Your task to perform on an android device: Search for "bose soundsport free" on ebay.com, select the first entry, and add it to the cart. Image 0: 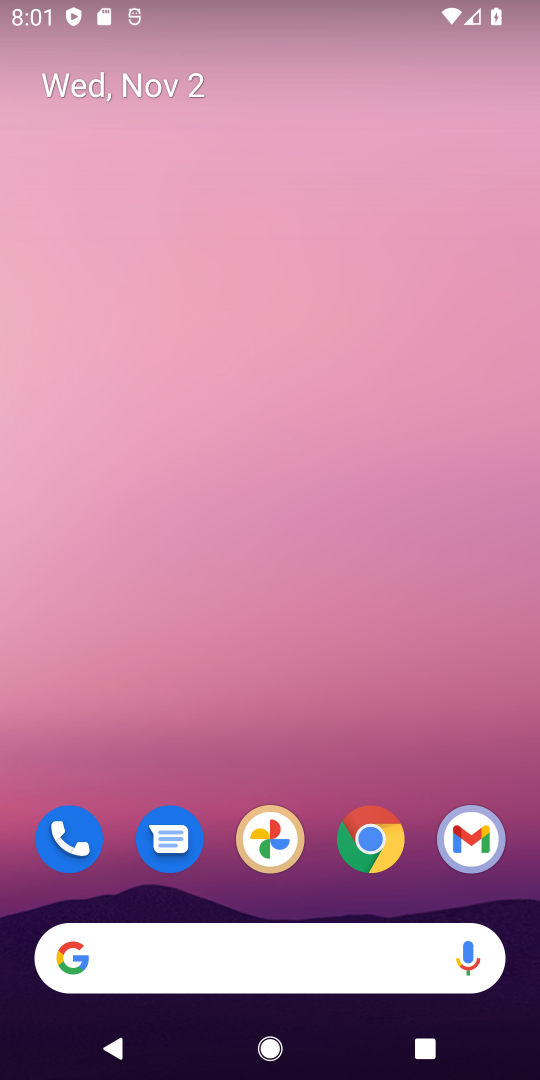
Step 0: click (369, 840)
Your task to perform on an android device: Search for "bose soundsport free" on ebay.com, select the first entry, and add it to the cart. Image 1: 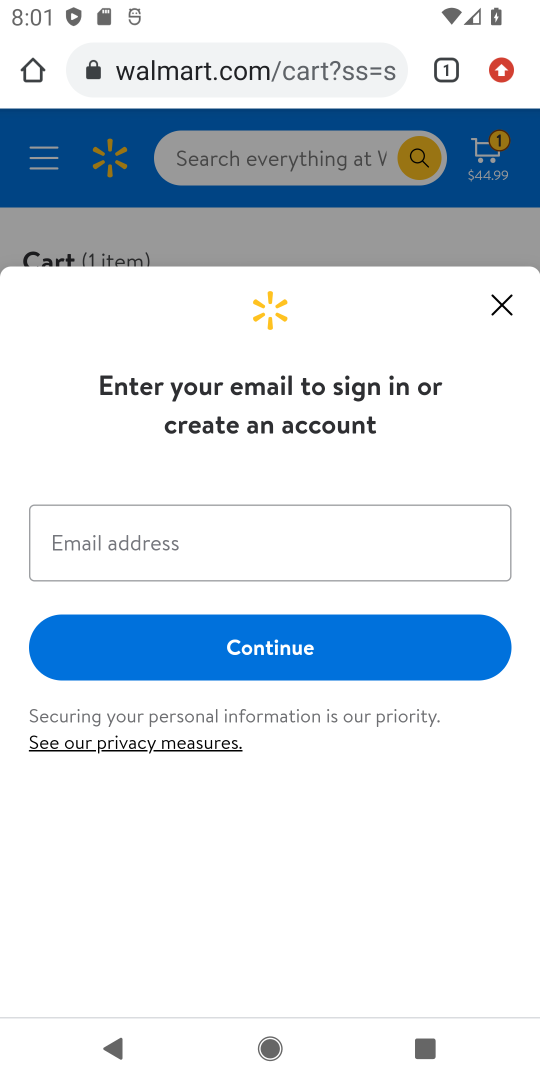
Step 1: click (316, 62)
Your task to perform on an android device: Search for "bose soundsport free" on ebay.com, select the first entry, and add it to the cart. Image 2: 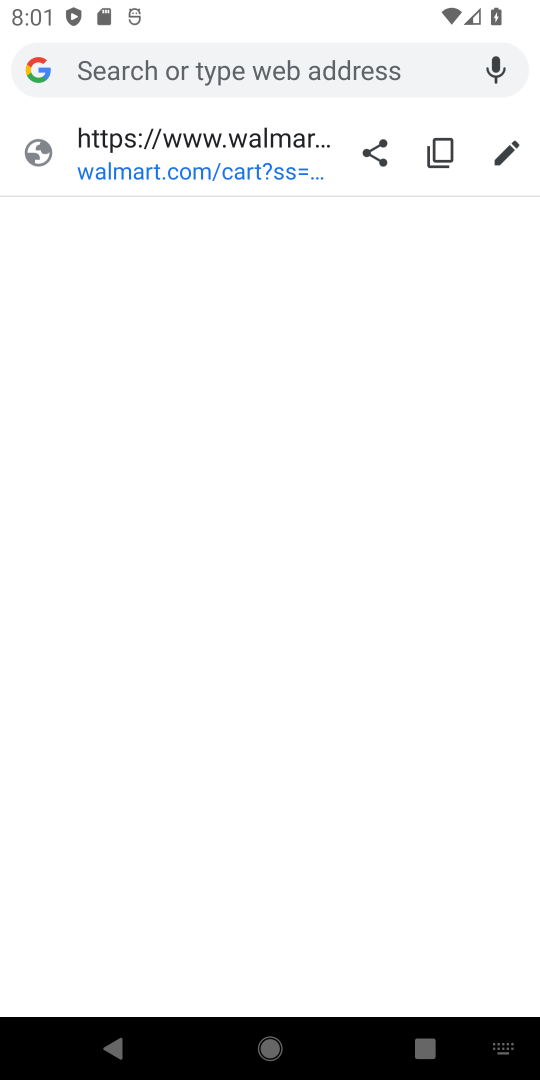
Step 2: type "ebay.com"
Your task to perform on an android device: Search for "bose soundsport free" on ebay.com, select the first entry, and add it to the cart. Image 3: 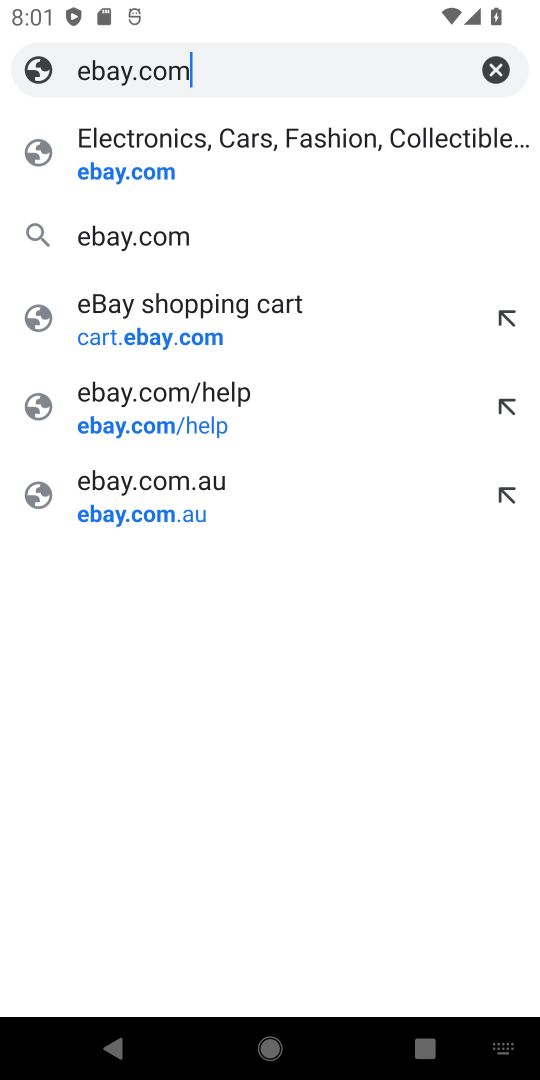
Step 3: click (182, 235)
Your task to perform on an android device: Search for "bose soundsport free" on ebay.com, select the first entry, and add it to the cart. Image 4: 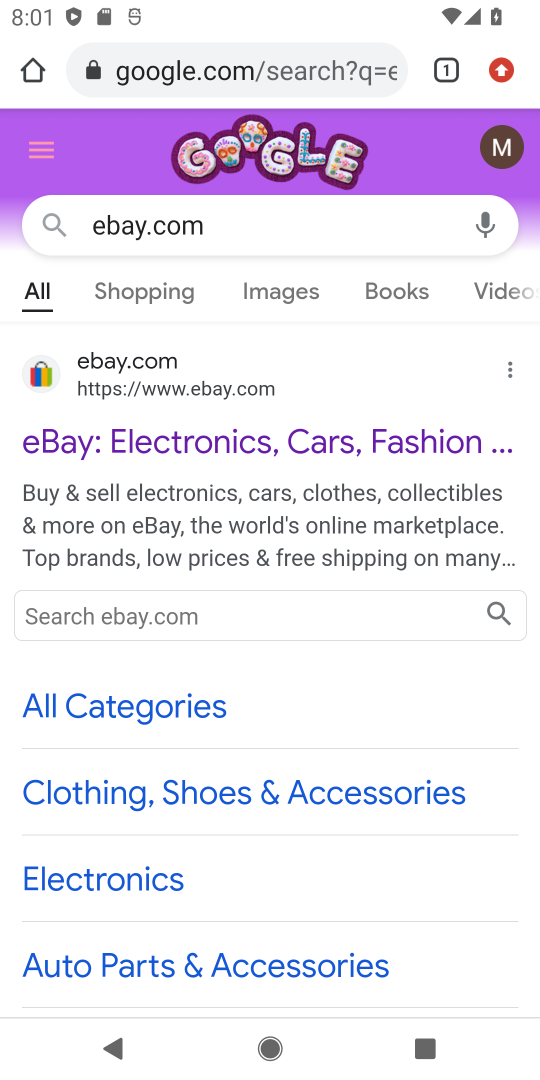
Step 4: click (241, 372)
Your task to perform on an android device: Search for "bose soundsport free" on ebay.com, select the first entry, and add it to the cart. Image 5: 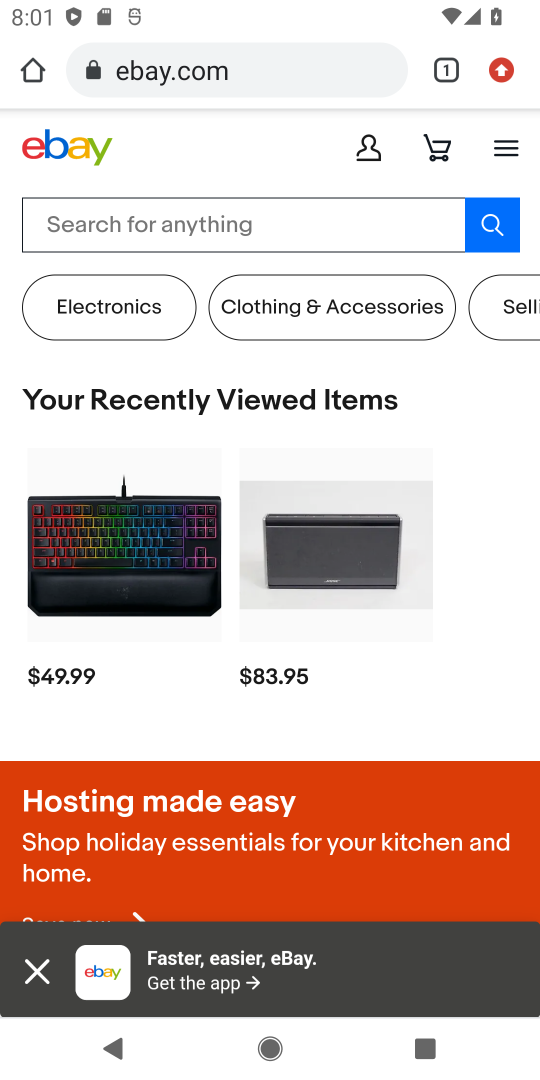
Step 5: click (315, 233)
Your task to perform on an android device: Search for "bose soundsport free" on ebay.com, select the first entry, and add it to the cart. Image 6: 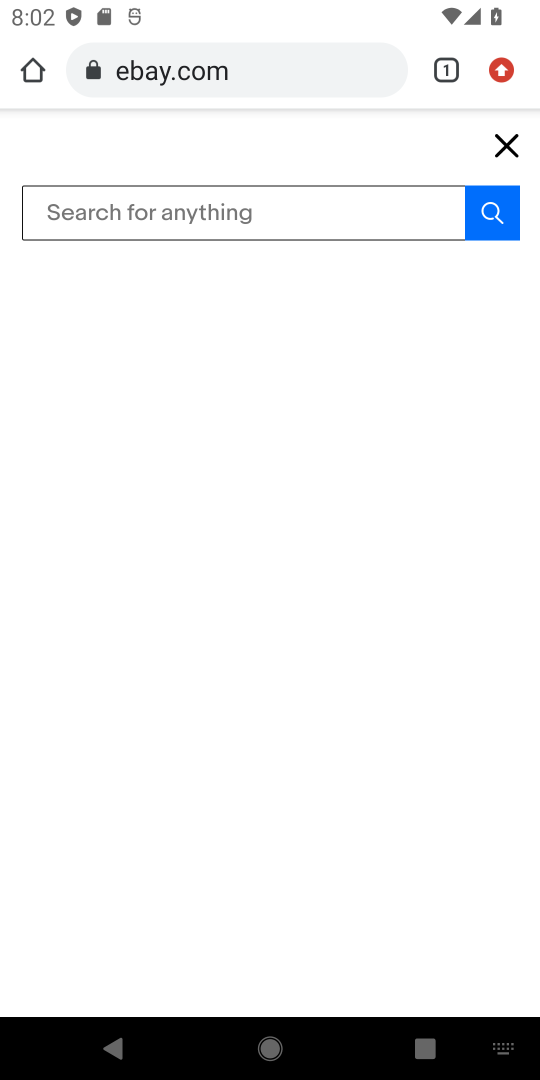
Step 6: type "bose soundsport free"
Your task to perform on an android device: Search for "bose soundsport free" on ebay.com, select the first entry, and add it to the cart. Image 7: 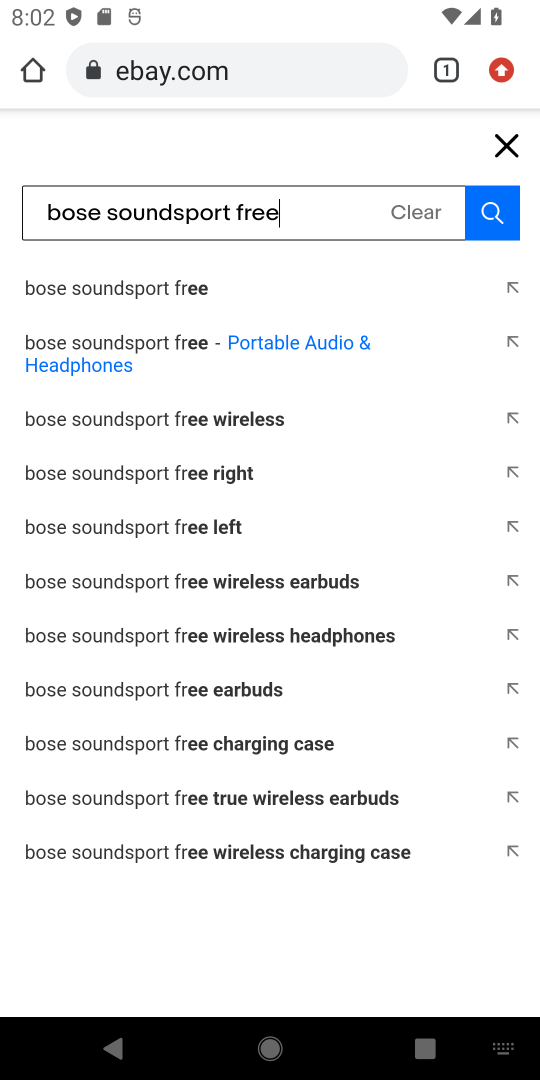
Step 7: click (489, 216)
Your task to perform on an android device: Search for "bose soundsport free" on ebay.com, select the first entry, and add it to the cart. Image 8: 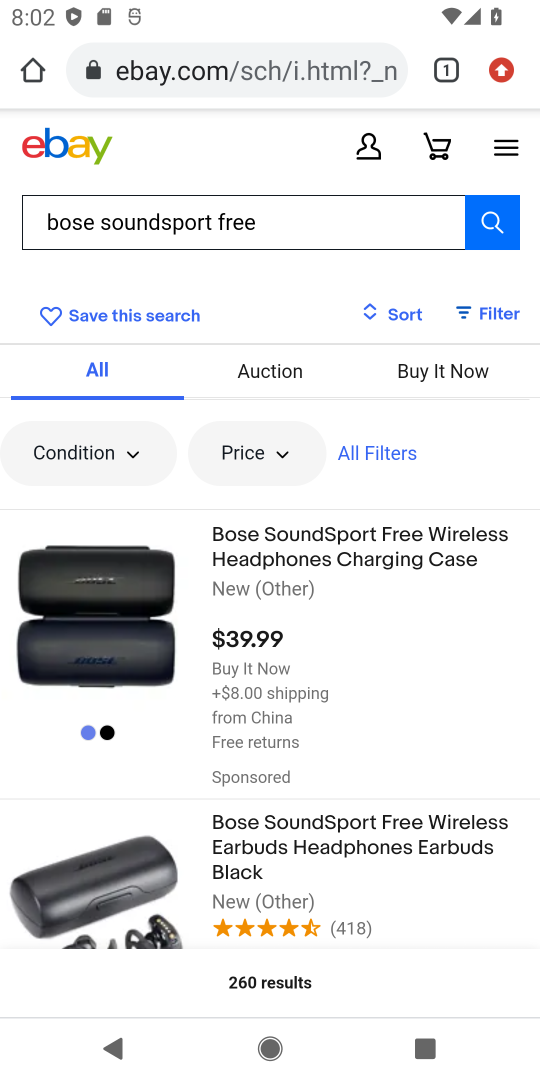
Step 8: drag from (371, 706) to (378, 446)
Your task to perform on an android device: Search for "bose soundsport free" on ebay.com, select the first entry, and add it to the cart. Image 9: 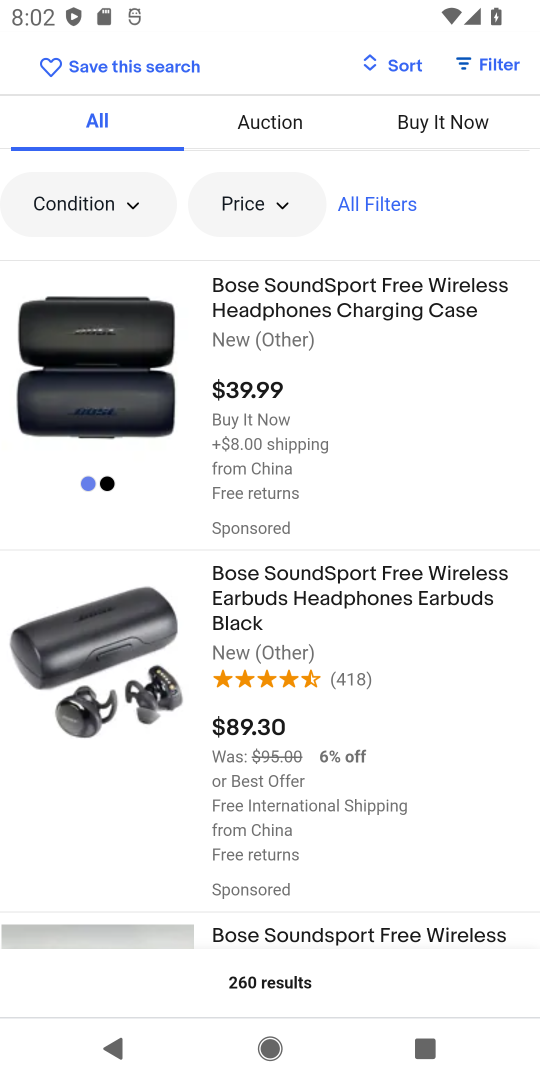
Step 9: click (370, 584)
Your task to perform on an android device: Search for "bose soundsport free" on ebay.com, select the first entry, and add it to the cart. Image 10: 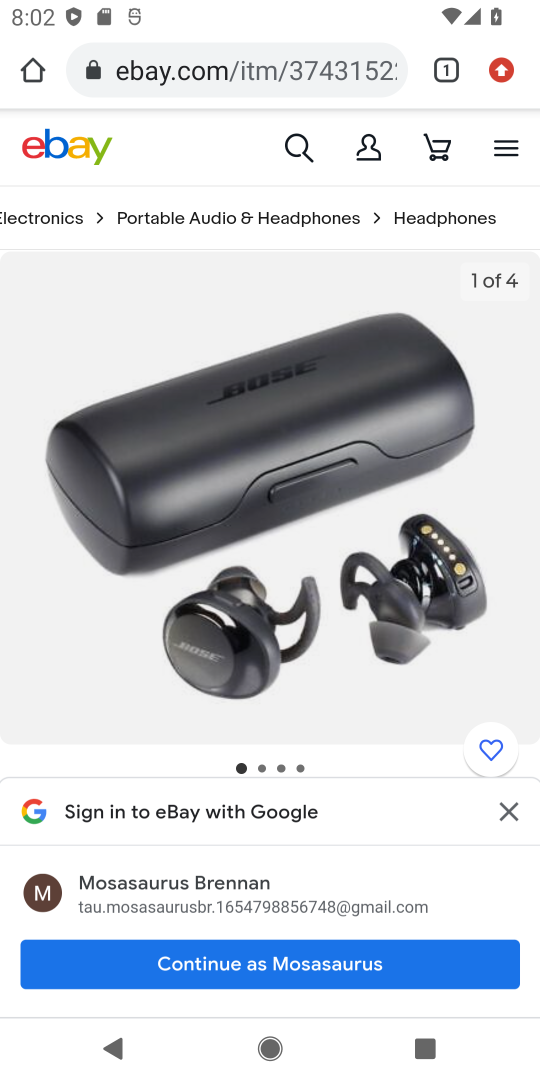
Step 10: drag from (325, 927) to (357, 406)
Your task to perform on an android device: Search for "bose soundsport free" on ebay.com, select the first entry, and add it to the cart. Image 11: 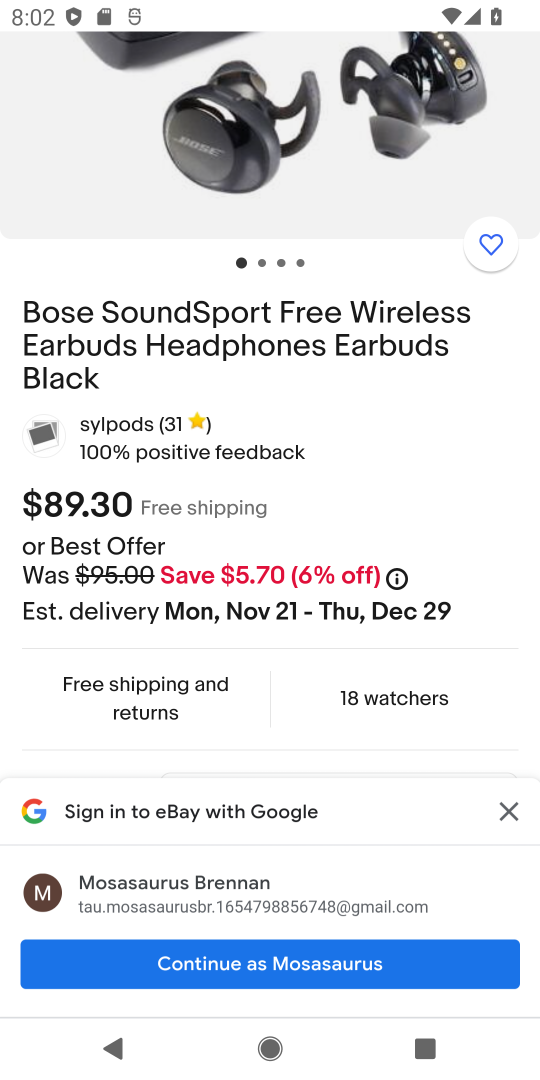
Step 11: click (505, 810)
Your task to perform on an android device: Search for "bose soundsport free" on ebay.com, select the first entry, and add it to the cart. Image 12: 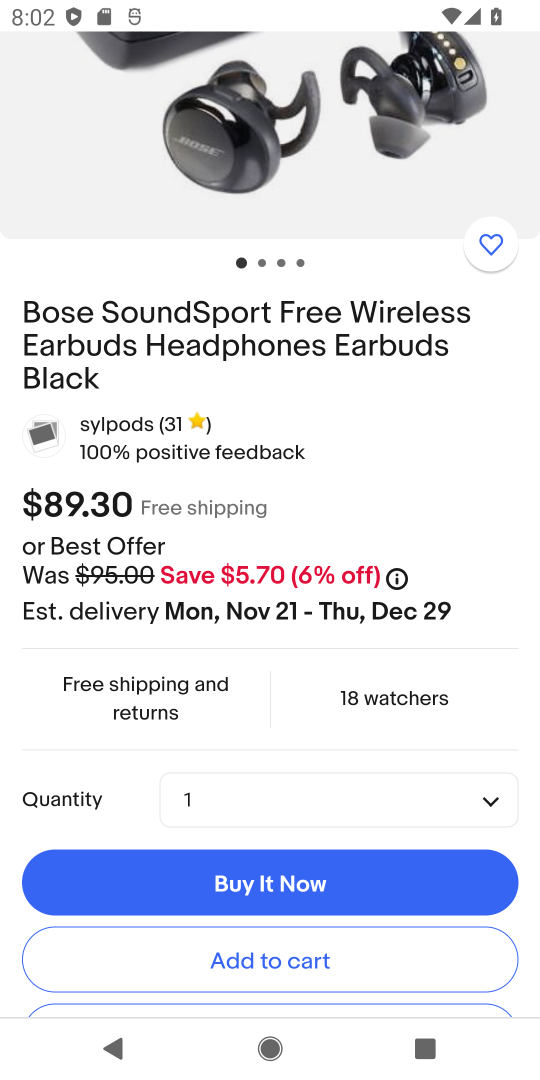
Step 12: click (276, 962)
Your task to perform on an android device: Search for "bose soundsport free" on ebay.com, select the first entry, and add it to the cart. Image 13: 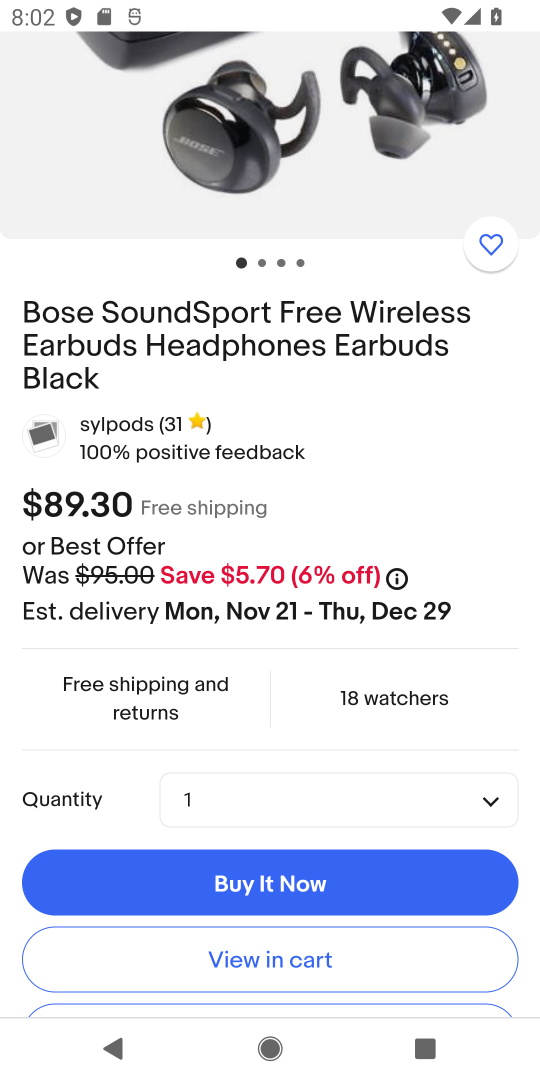
Step 13: click (256, 966)
Your task to perform on an android device: Search for "bose soundsport free" on ebay.com, select the first entry, and add it to the cart. Image 14: 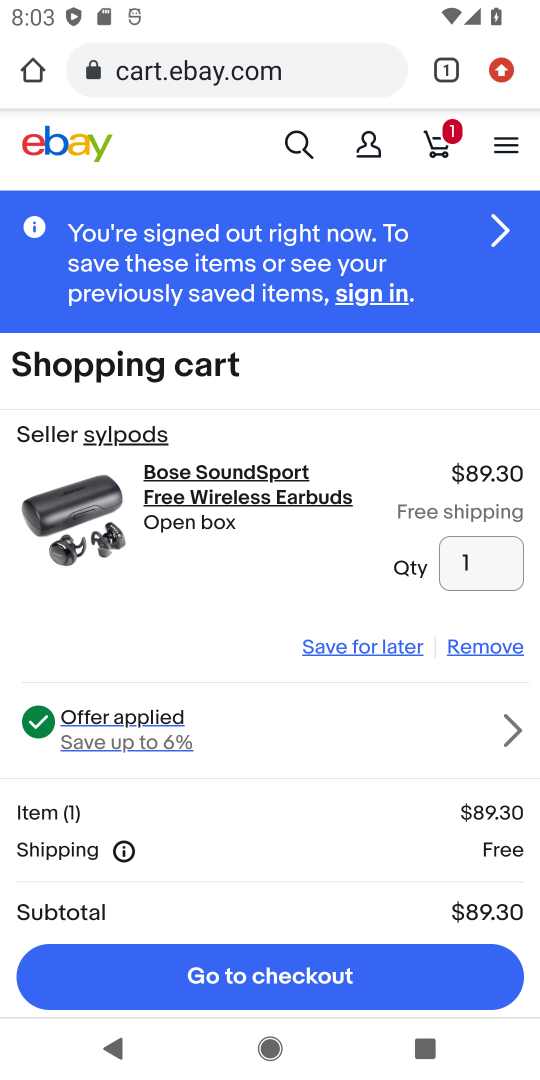
Step 14: task complete